Your task to perform on an android device: Turn on the flashlight Image 0: 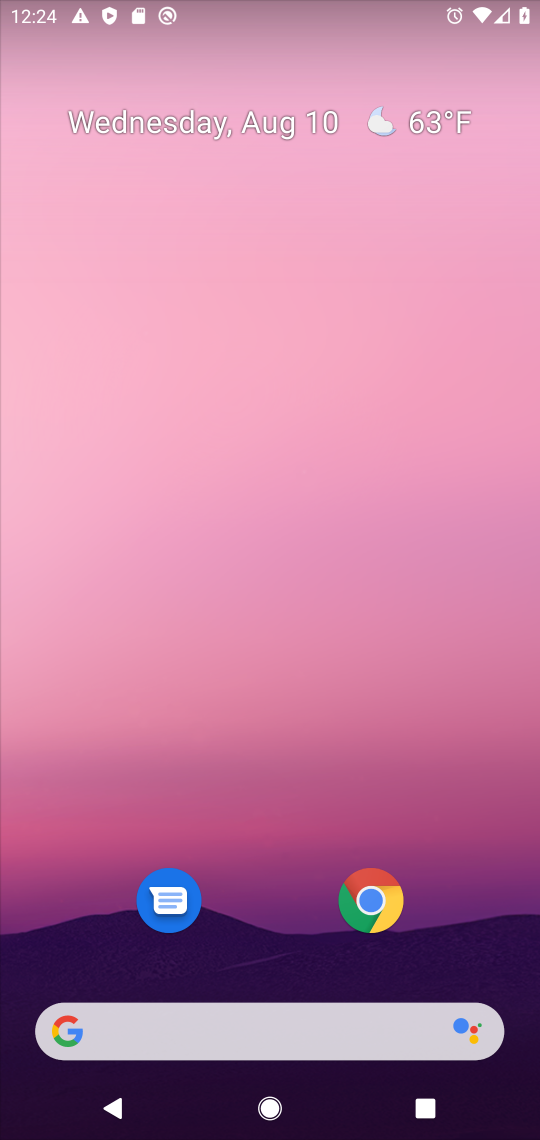
Step 0: drag from (269, 857) to (311, 4)
Your task to perform on an android device: Turn on the flashlight Image 1: 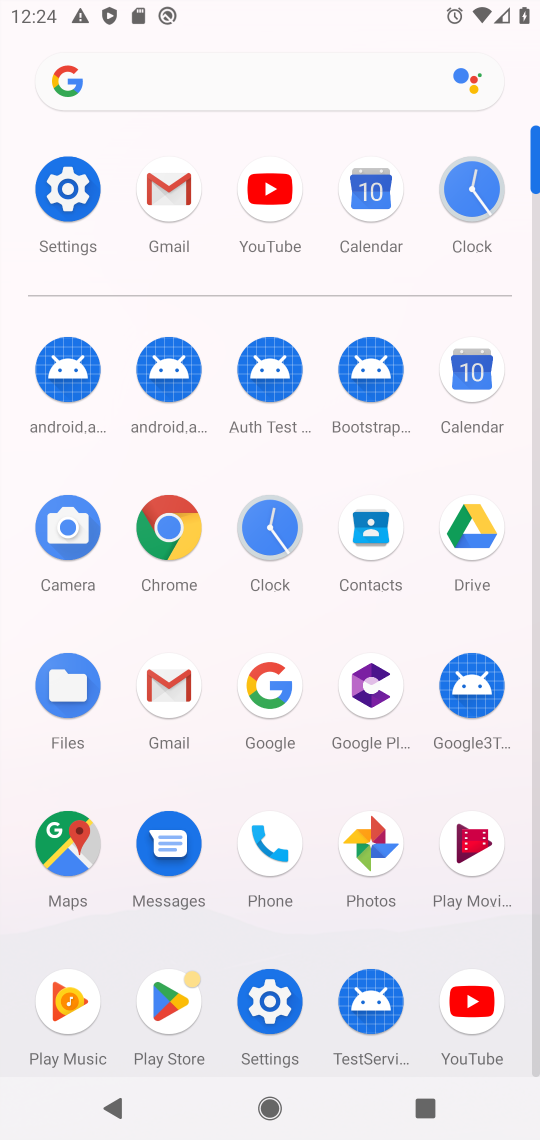
Step 1: click (74, 186)
Your task to perform on an android device: Turn on the flashlight Image 2: 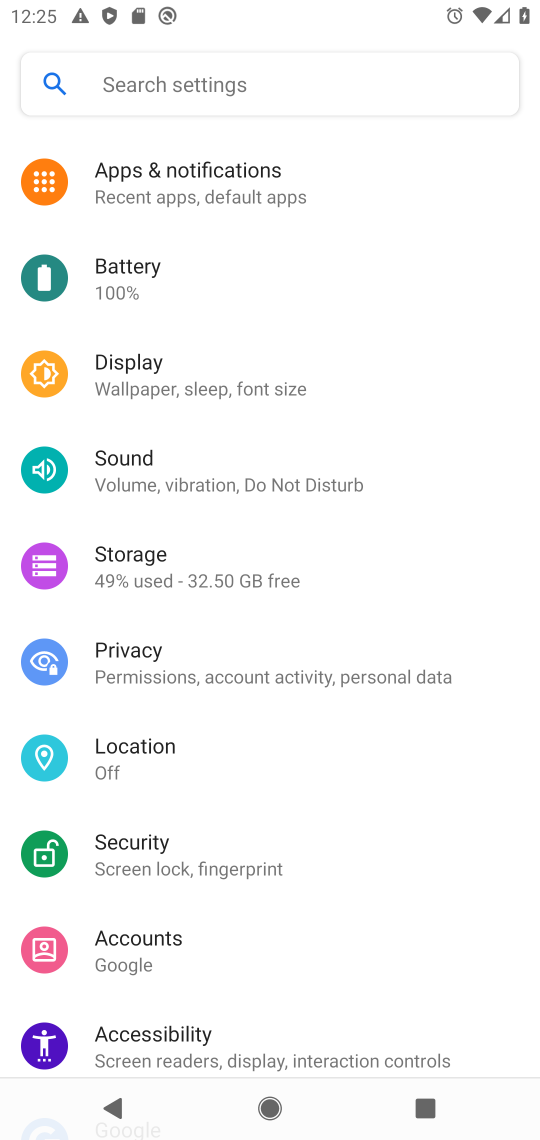
Step 2: drag from (266, 255) to (314, 762)
Your task to perform on an android device: Turn on the flashlight Image 3: 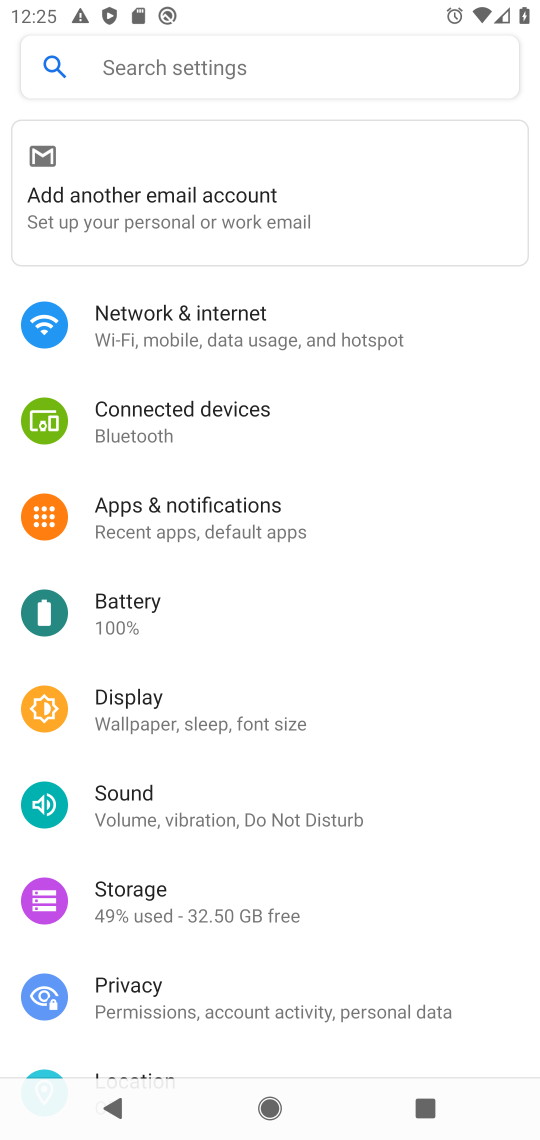
Step 3: click (331, 65)
Your task to perform on an android device: Turn on the flashlight Image 4: 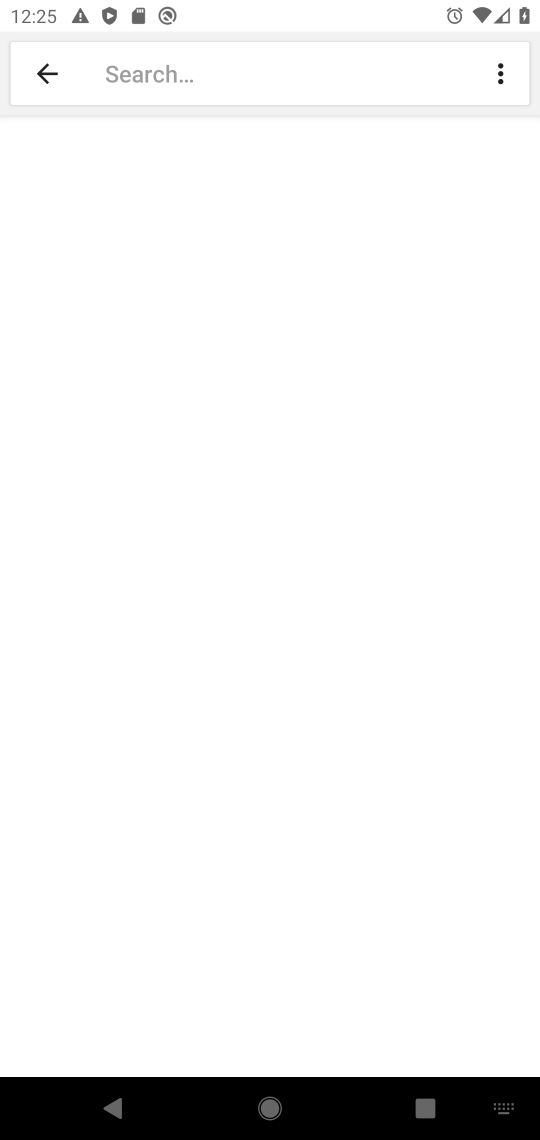
Step 4: type "Flashlight"
Your task to perform on an android device: Turn on the flashlight Image 5: 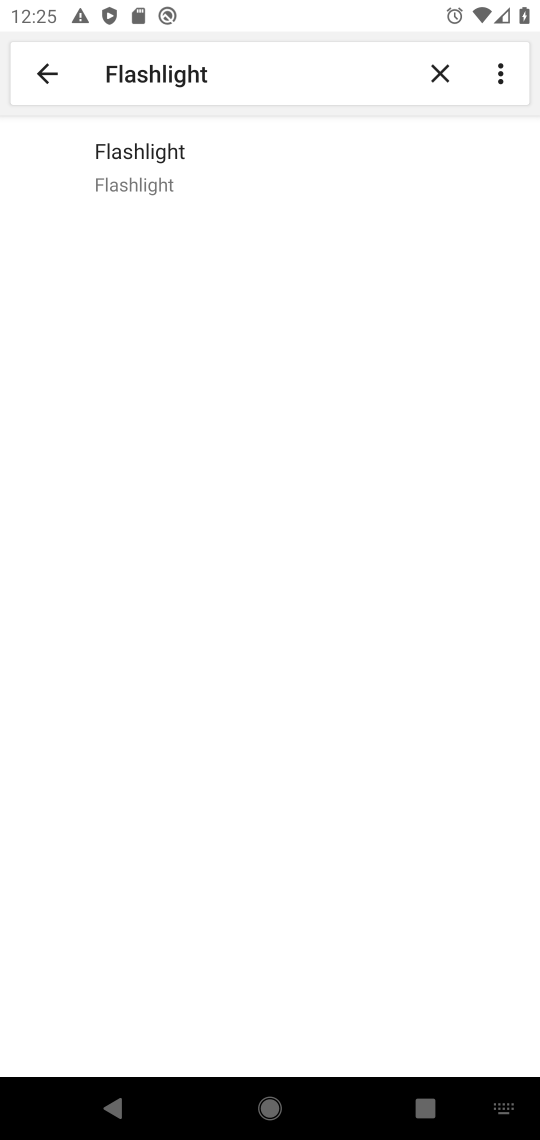
Step 5: click (140, 161)
Your task to perform on an android device: Turn on the flashlight Image 6: 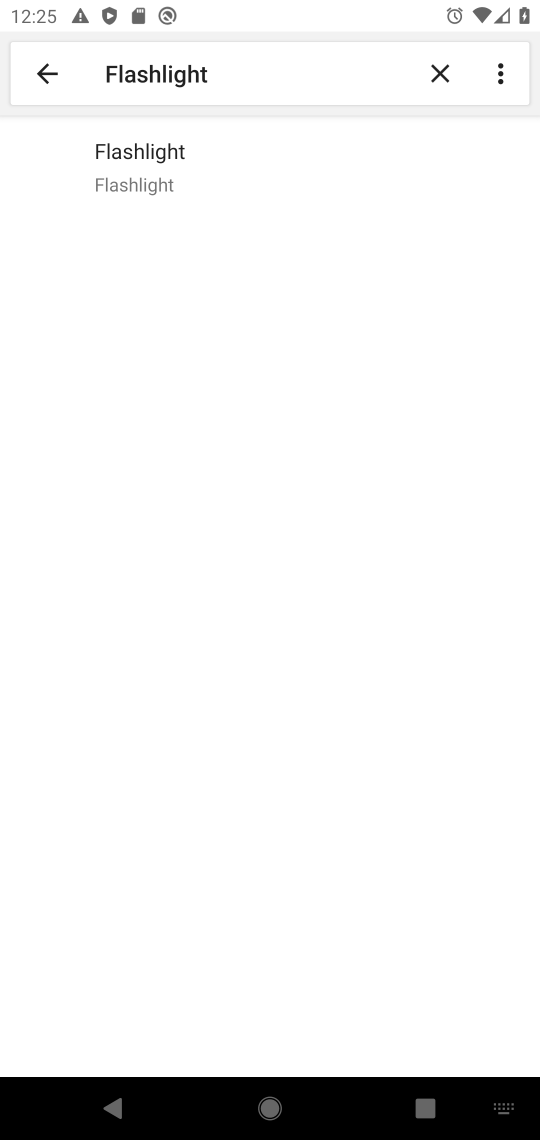
Step 6: click (144, 175)
Your task to perform on an android device: Turn on the flashlight Image 7: 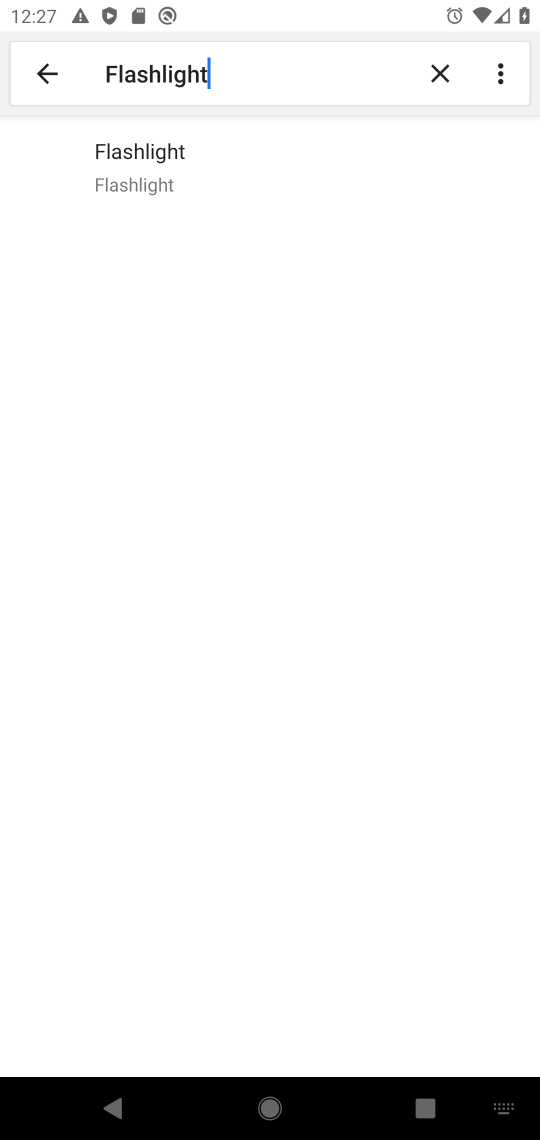
Step 7: click (183, 142)
Your task to perform on an android device: Turn on the flashlight Image 8: 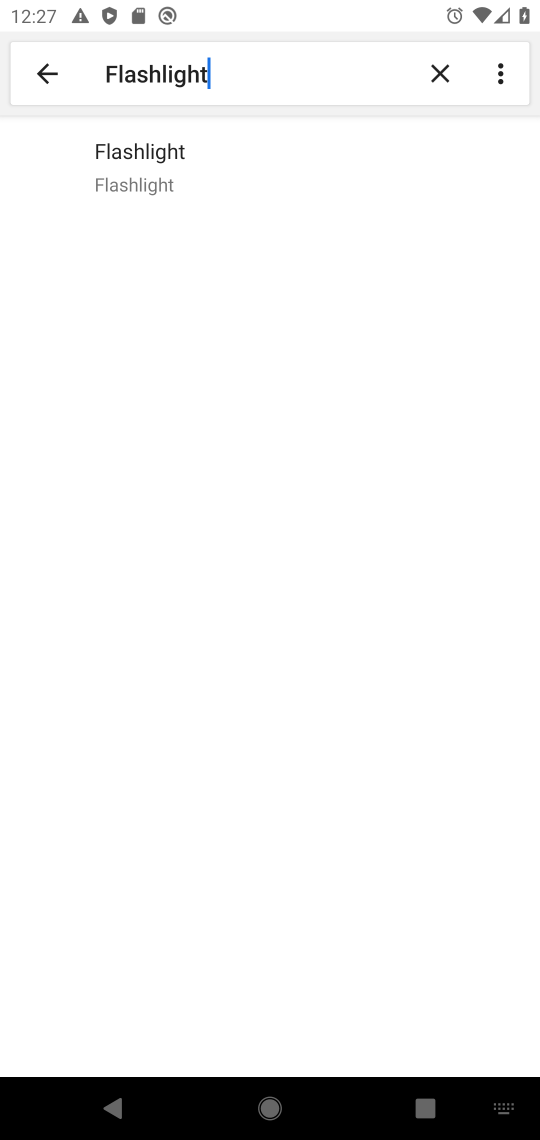
Step 8: task complete